Your task to perform on an android device: What's the weather going to be this weekend? Image 0: 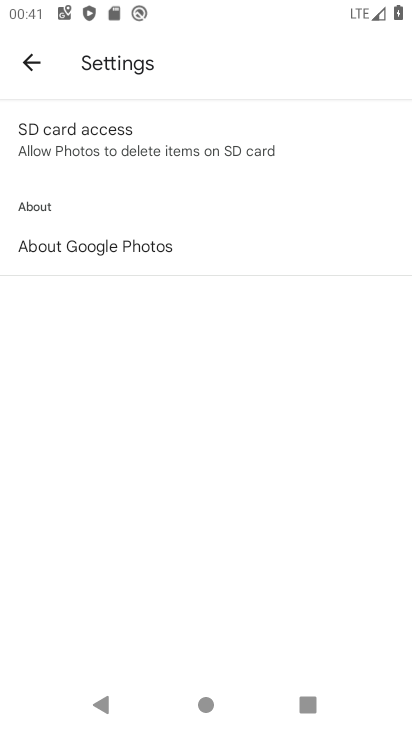
Step 0: drag from (276, 602) to (313, 359)
Your task to perform on an android device: What's the weather going to be this weekend? Image 1: 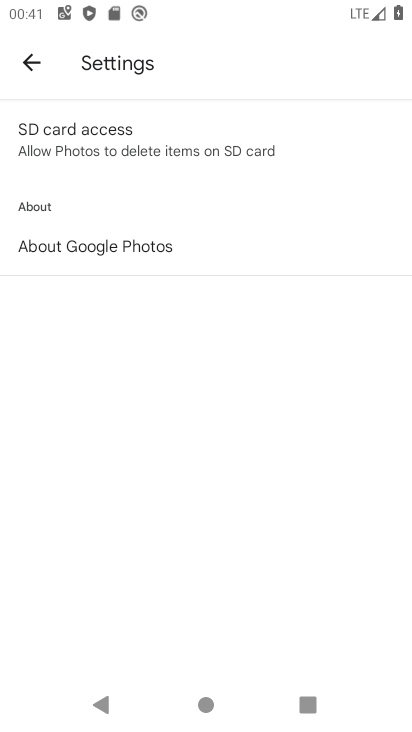
Step 1: click (233, 507)
Your task to perform on an android device: What's the weather going to be this weekend? Image 2: 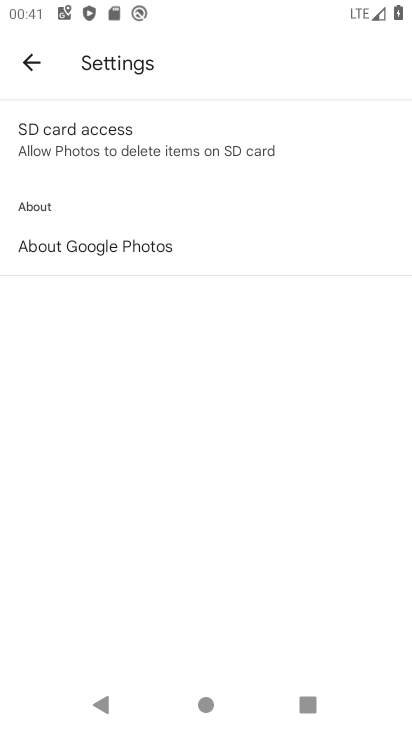
Step 2: press home button
Your task to perform on an android device: What's the weather going to be this weekend? Image 3: 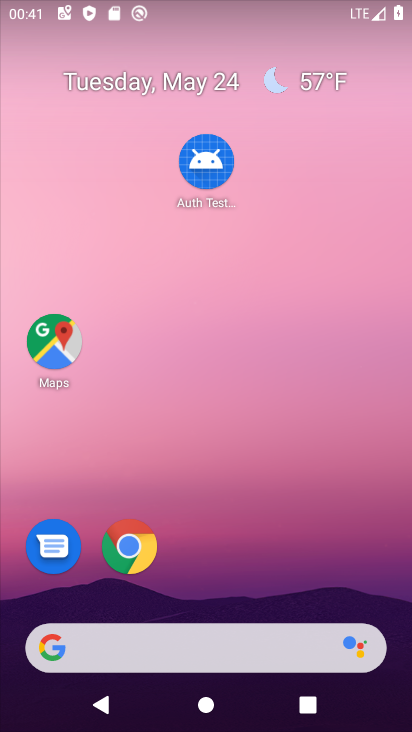
Step 3: drag from (221, 621) to (304, 43)
Your task to perform on an android device: What's the weather going to be this weekend? Image 4: 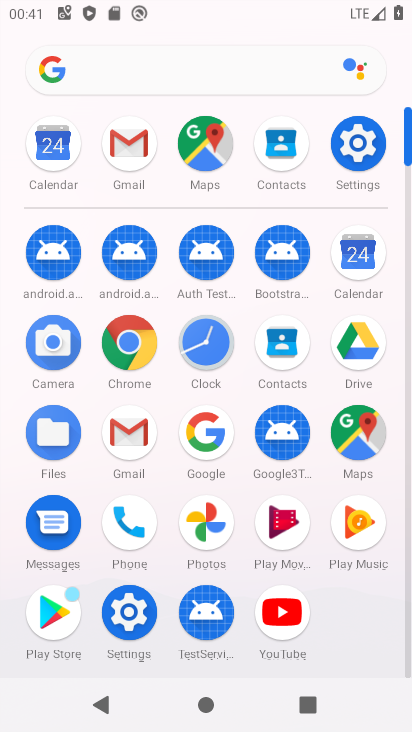
Step 4: click (165, 57)
Your task to perform on an android device: What's the weather going to be this weekend? Image 5: 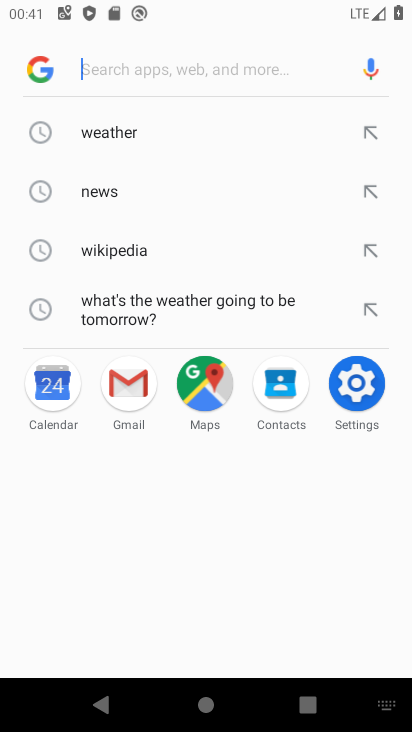
Step 5: type "weather going to be this weekend?"
Your task to perform on an android device: What's the weather going to be this weekend? Image 6: 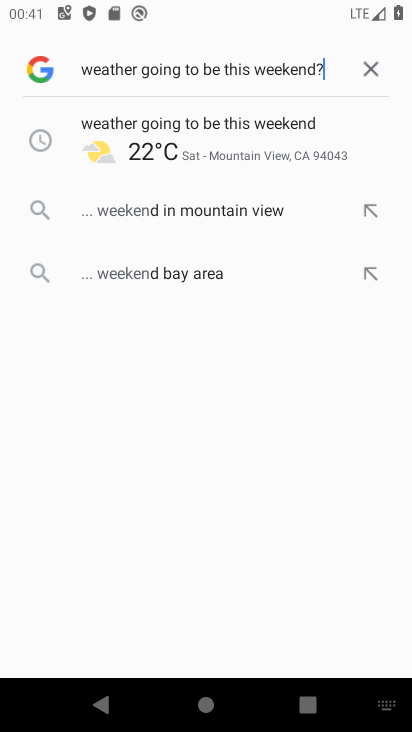
Step 6: type ""
Your task to perform on an android device: What's the weather going to be this weekend? Image 7: 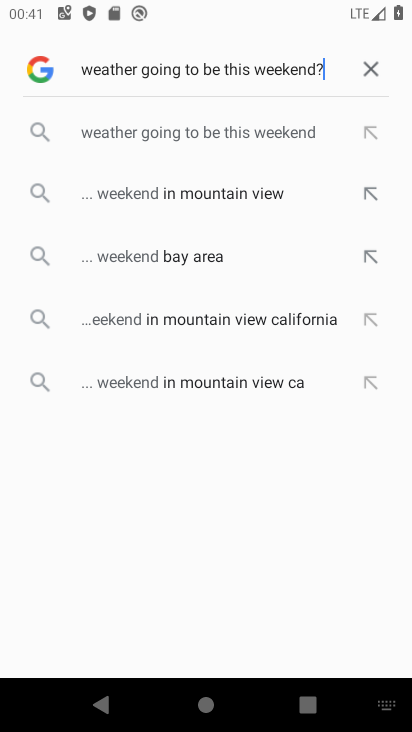
Step 7: click (220, 133)
Your task to perform on an android device: What's the weather going to be this weekend? Image 8: 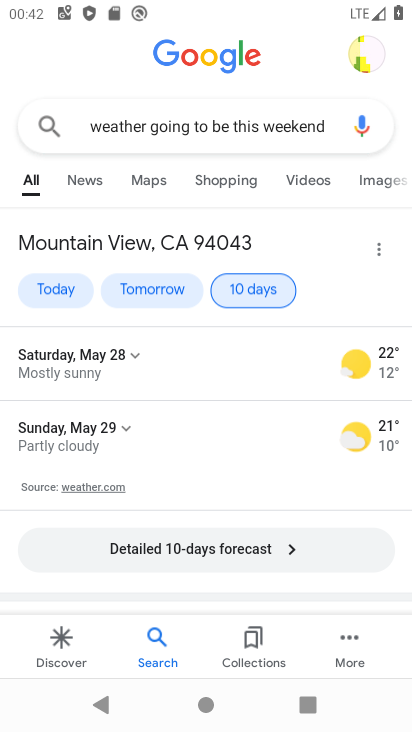
Step 8: task complete